Your task to perform on an android device: What's the weather going to be tomorrow? Image 0: 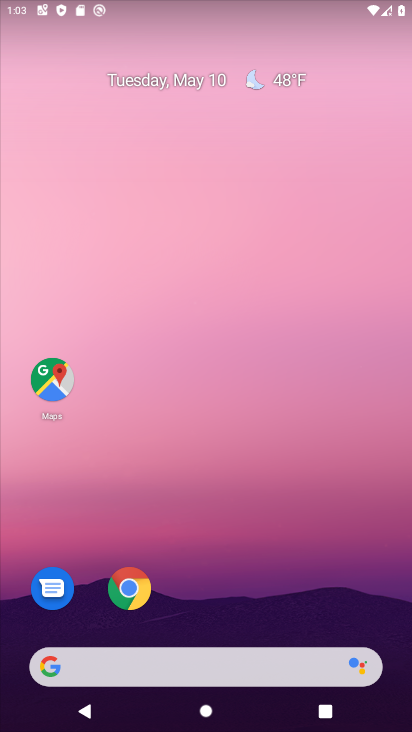
Step 0: drag from (238, 596) to (215, 132)
Your task to perform on an android device: What's the weather going to be tomorrow? Image 1: 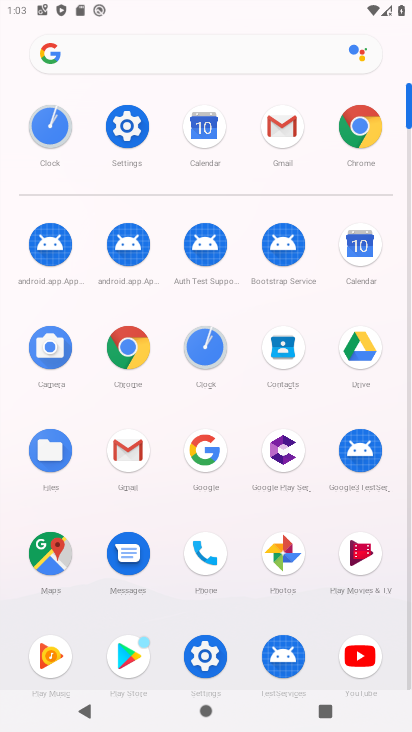
Step 1: click (356, 139)
Your task to perform on an android device: What's the weather going to be tomorrow? Image 2: 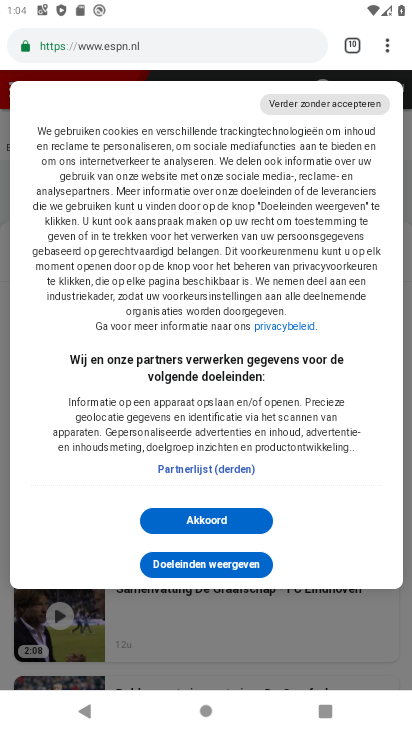
Step 2: click (384, 48)
Your task to perform on an android device: What's the weather going to be tomorrow? Image 3: 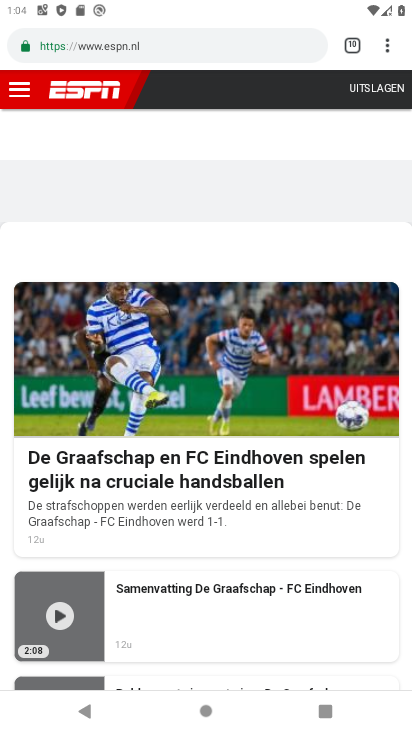
Step 3: click (378, 56)
Your task to perform on an android device: What's the weather going to be tomorrow? Image 4: 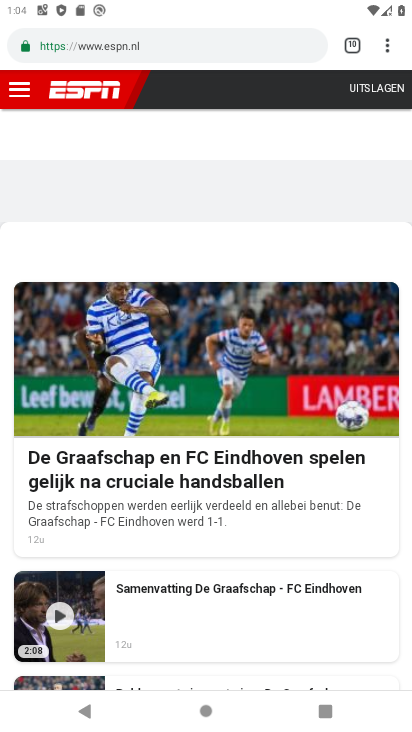
Step 4: click (373, 45)
Your task to perform on an android device: What's the weather going to be tomorrow? Image 5: 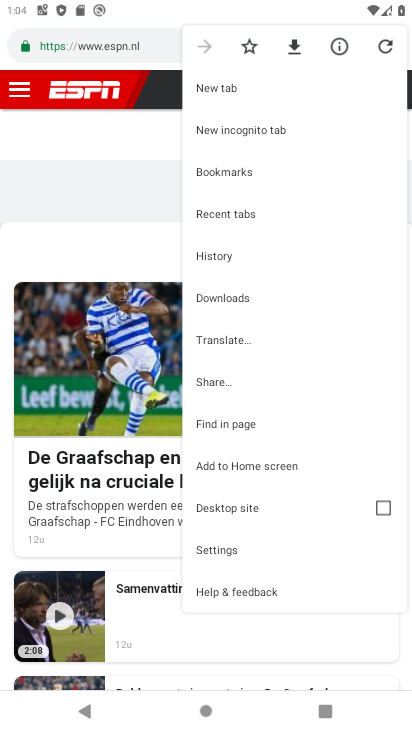
Step 5: click (235, 84)
Your task to perform on an android device: What's the weather going to be tomorrow? Image 6: 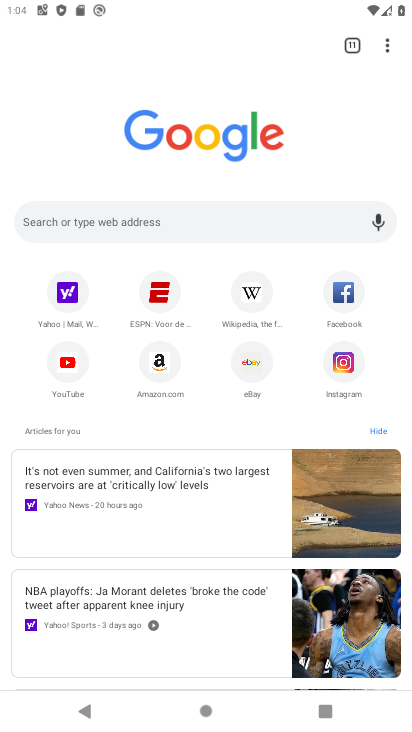
Step 6: click (183, 218)
Your task to perform on an android device: What's the weather going to be tomorrow? Image 7: 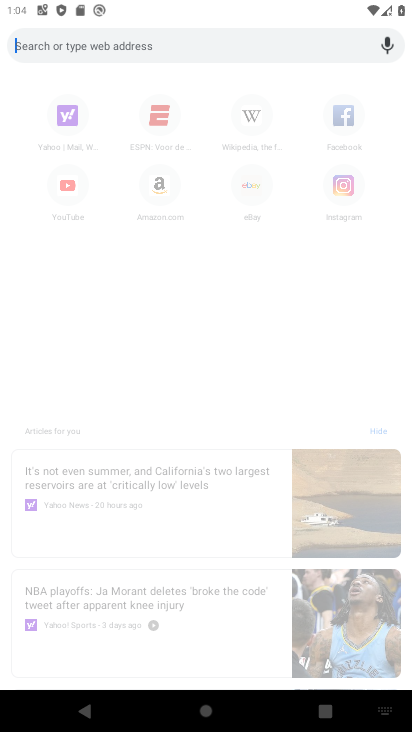
Step 7: type "What's the weather going to be tomorrow?"
Your task to perform on an android device: What's the weather going to be tomorrow? Image 8: 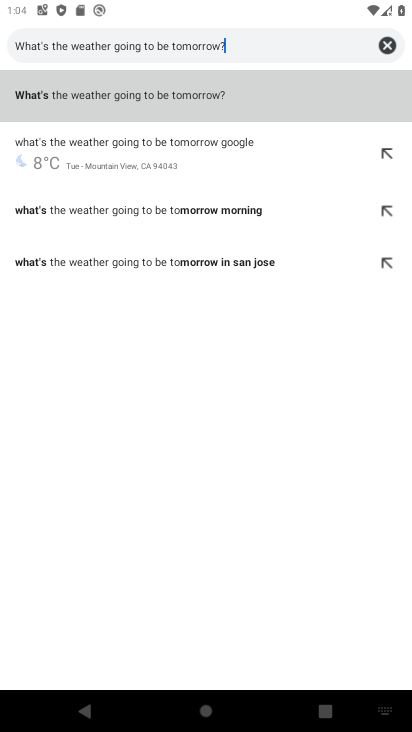
Step 8: click (203, 94)
Your task to perform on an android device: What's the weather going to be tomorrow? Image 9: 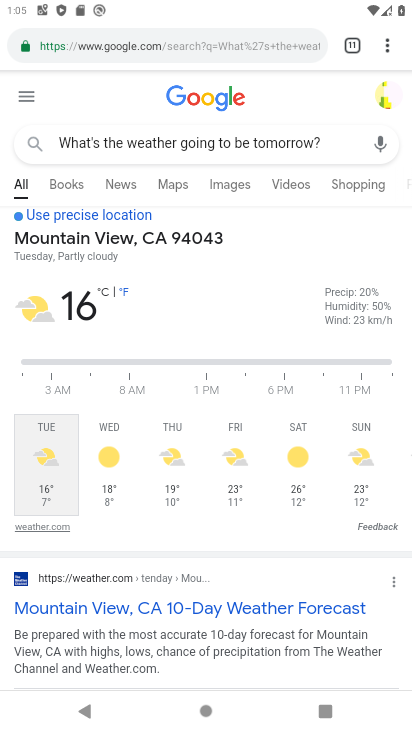
Step 9: task complete